Your task to perform on an android device: Go to Yahoo.com Image 0: 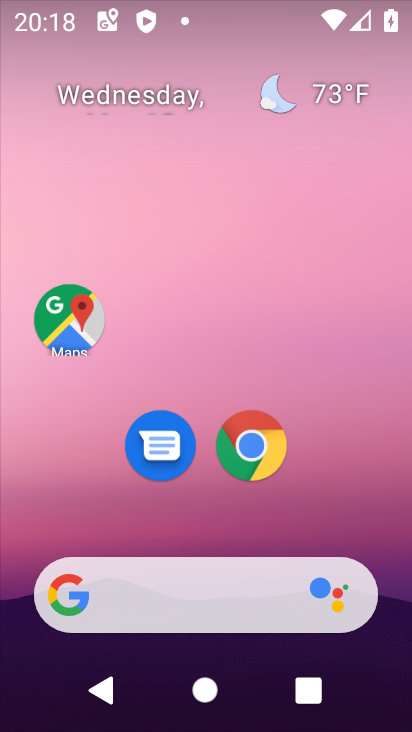
Step 0: click (241, 433)
Your task to perform on an android device: Go to Yahoo.com Image 1: 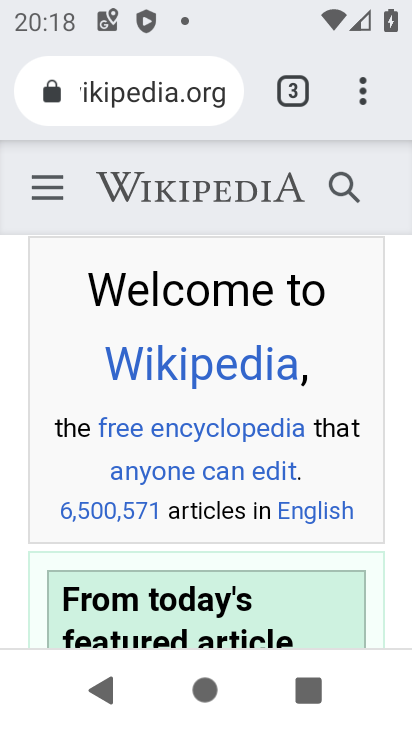
Step 1: click (373, 80)
Your task to perform on an android device: Go to Yahoo.com Image 2: 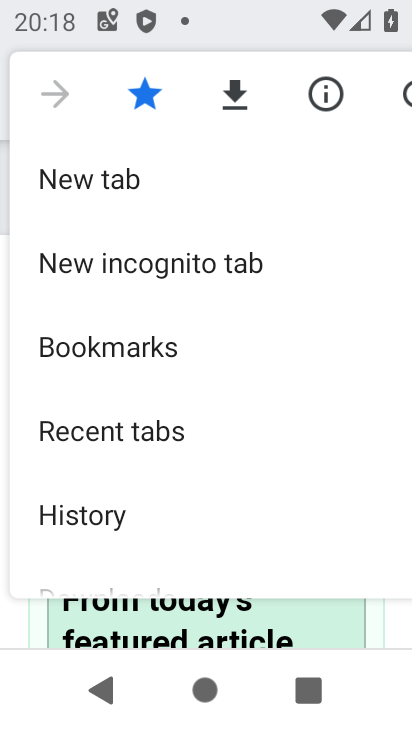
Step 2: click (104, 167)
Your task to perform on an android device: Go to Yahoo.com Image 3: 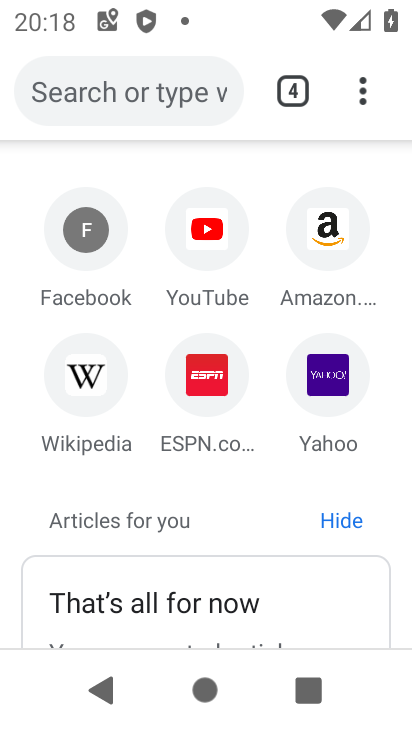
Step 3: click (320, 379)
Your task to perform on an android device: Go to Yahoo.com Image 4: 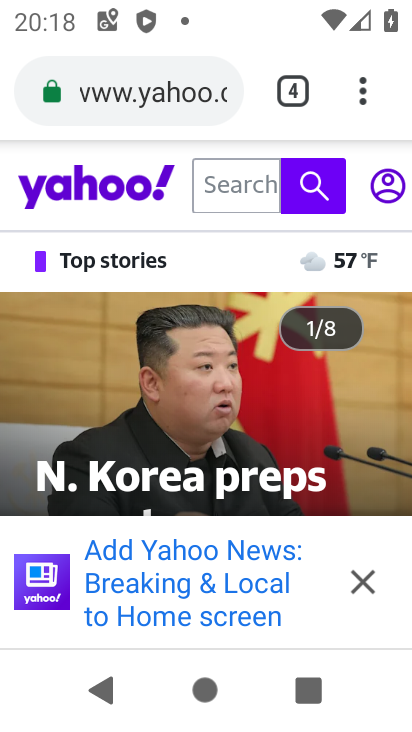
Step 4: task complete